Your task to perform on an android device: manage bookmarks in the chrome app Image 0: 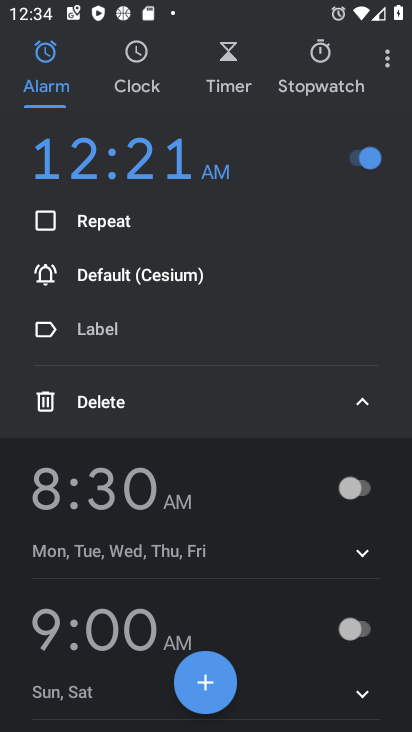
Step 0: press home button
Your task to perform on an android device: manage bookmarks in the chrome app Image 1: 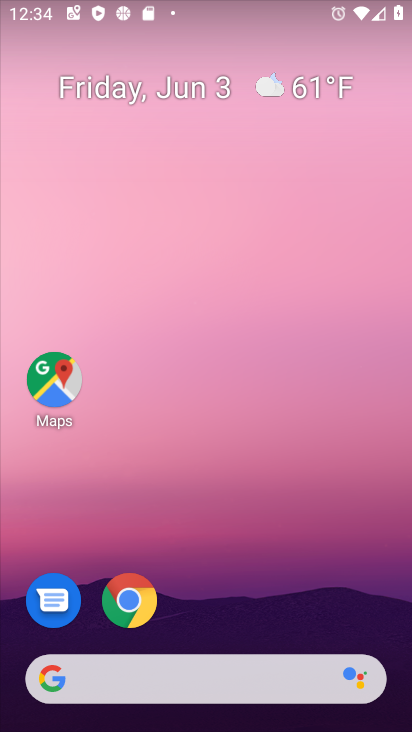
Step 1: drag from (246, 611) to (281, 114)
Your task to perform on an android device: manage bookmarks in the chrome app Image 2: 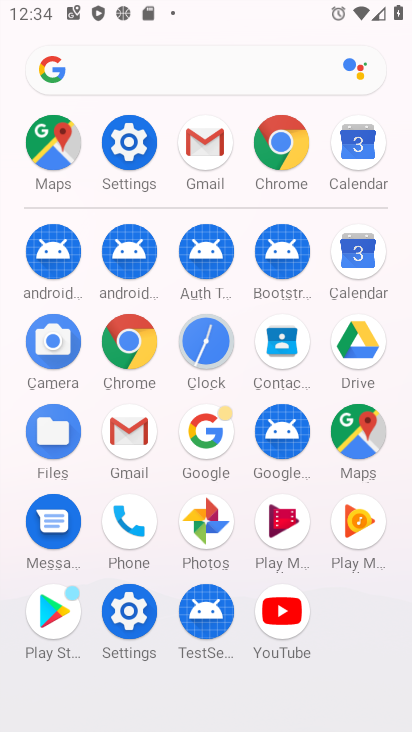
Step 2: click (119, 346)
Your task to perform on an android device: manage bookmarks in the chrome app Image 3: 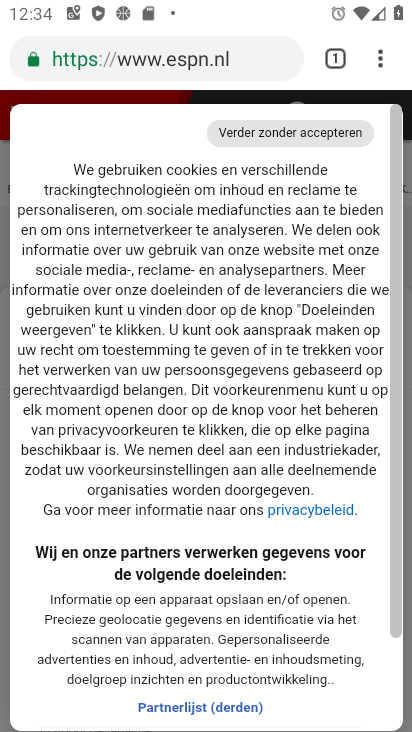
Step 3: task complete